Your task to perform on an android device: turn on wifi Image 0: 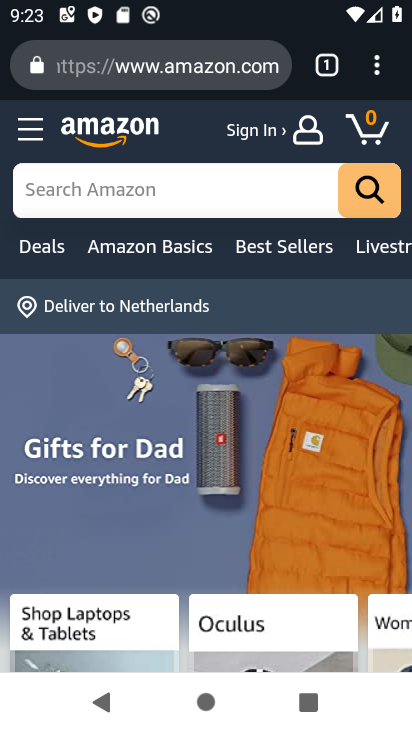
Step 0: press home button
Your task to perform on an android device: turn on wifi Image 1: 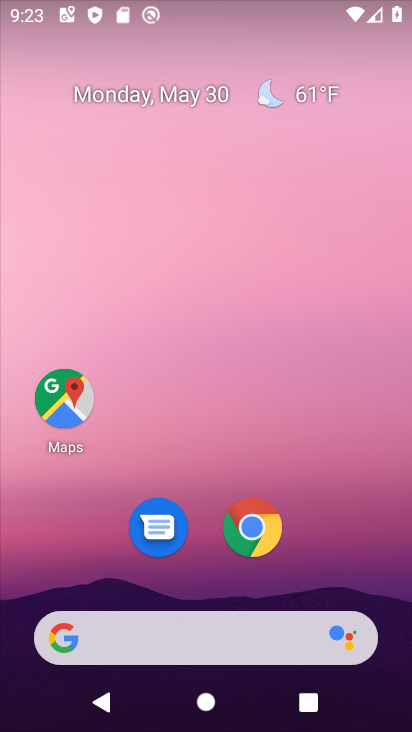
Step 1: drag from (211, 588) to (159, 7)
Your task to perform on an android device: turn on wifi Image 2: 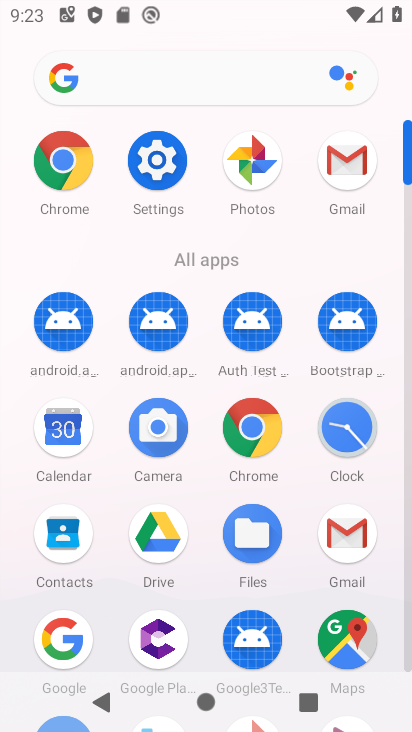
Step 2: click (165, 160)
Your task to perform on an android device: turn on wifi Image 3: 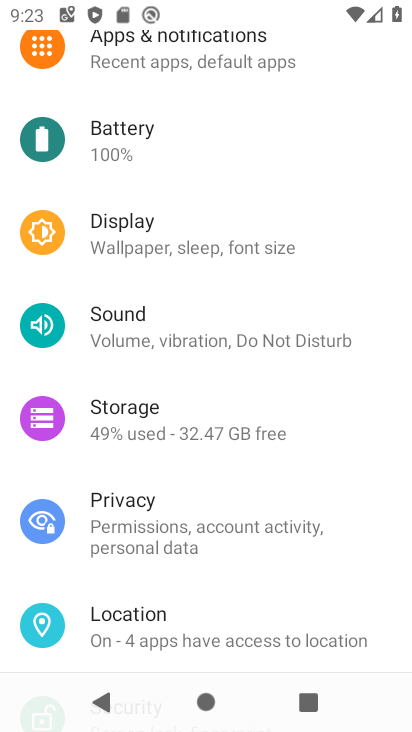
Step 3: drag from (195, 193) to (232, 457)
Your task to perform on an android device: turn on wifi Image 4: 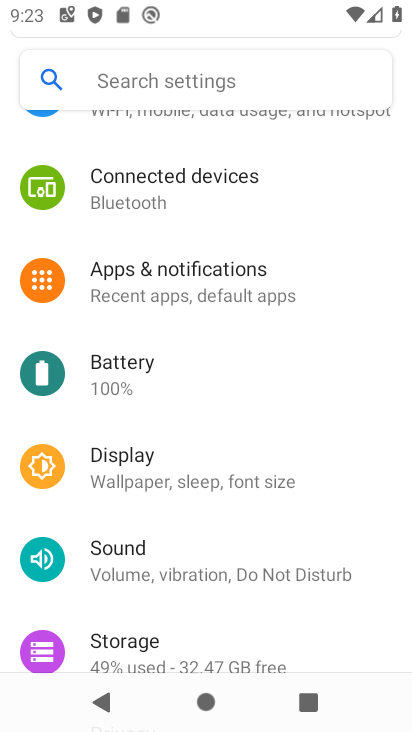
Step 4: drag from (251, 222) to (253, 539)
Your task to perform on an android device: turn on wifi Image 5: 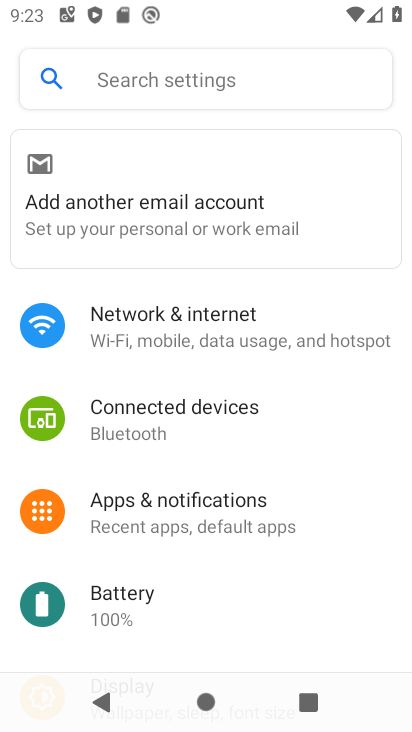
Step 5: click (201, 330)
Your task to perform on an android device: turn on wifi Image 6: 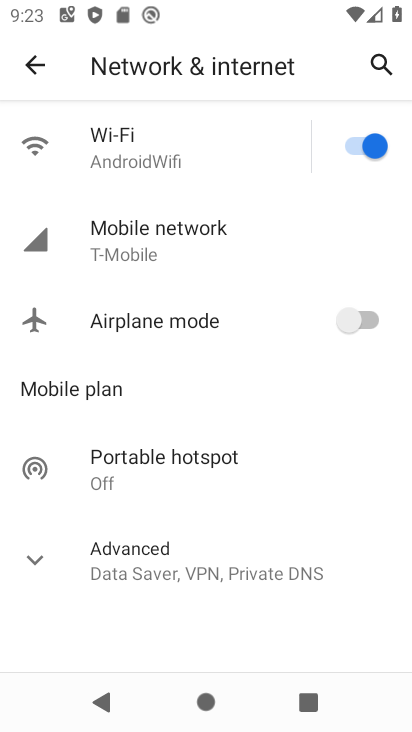
Step 6: task complete